Your task to perform on an android device: change the clock display to digital Image 0: 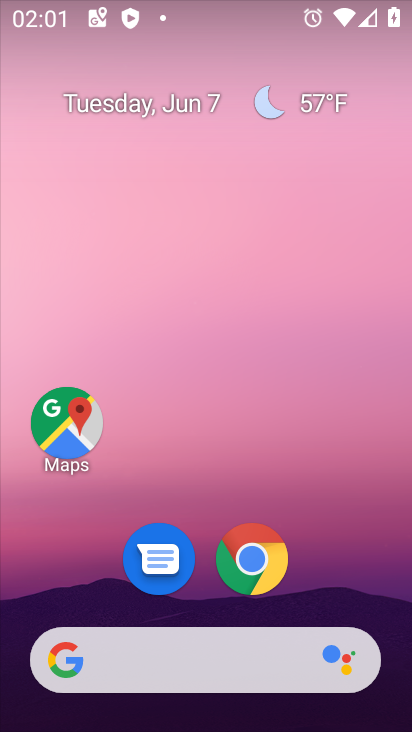
Step 0: drag from (328, 576) to (304, 78)
Your task to perform on an android device: change the clock display to digital Image 1: 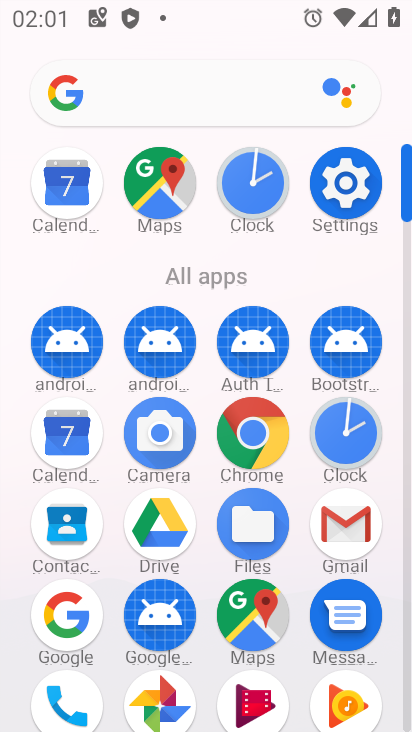
Step 1: click (253, 183)
Your task to perform on an android device: change the clock display to digital Image 2: 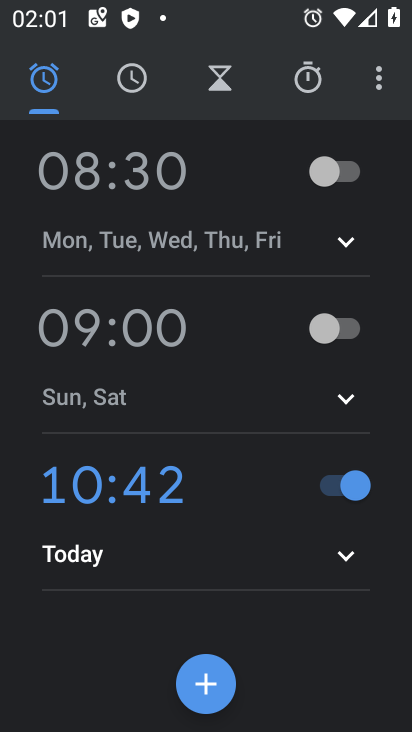
Step 2: click (378, 81)
Your task to perform on an android device: change the clock display to digital Image 3: 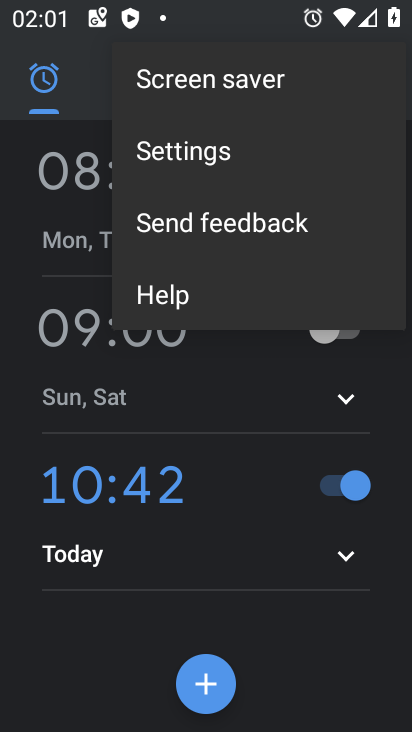
Step 3: click (189, 160)
Your task to perform on an android device: change the clock display to digital Image 4: 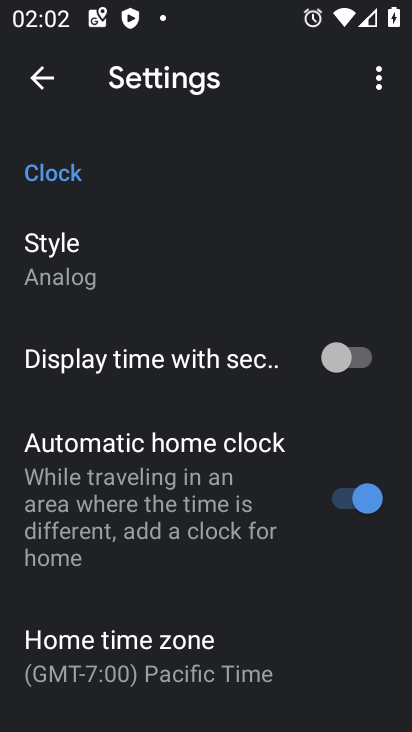
Step 4: click (66, 276)
Your task to perform on an android device: change the clock display to digital Image 5: 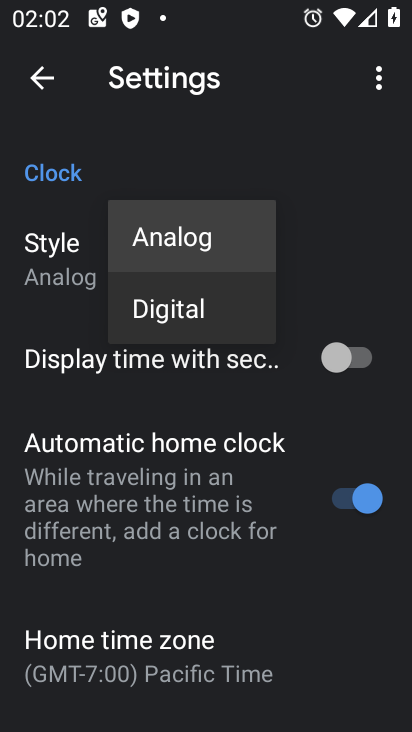
Step 5: click (178, 314)
Your task to perform on an android device: change the clock display to digital Image 6: 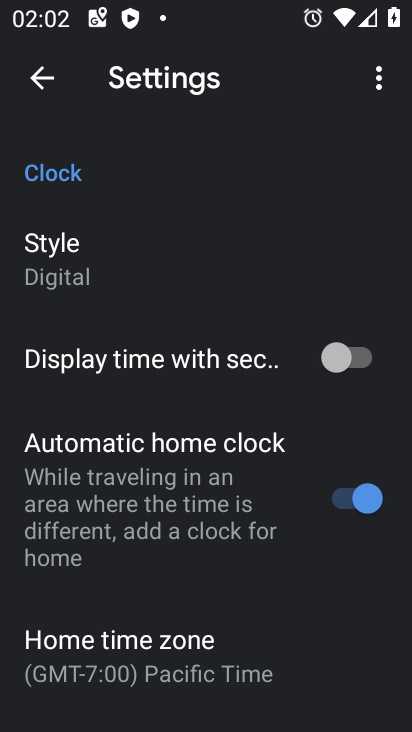
Step 6: task complete